Your task to perform on an android device: Open Yahoo.com Image 0: 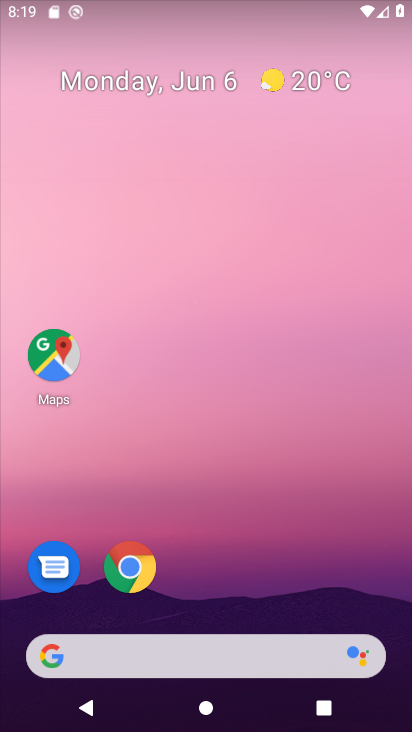
Step 0: click (122, 566)
Your task to perform on an android device: Open Yahoo.com Image 1: 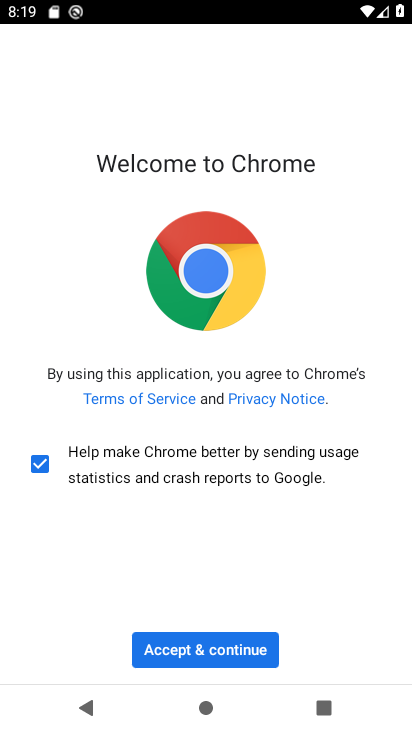
Step 1: click (234, 643)
Your task to perform on an android device: Open Yahoo.com Image 2: 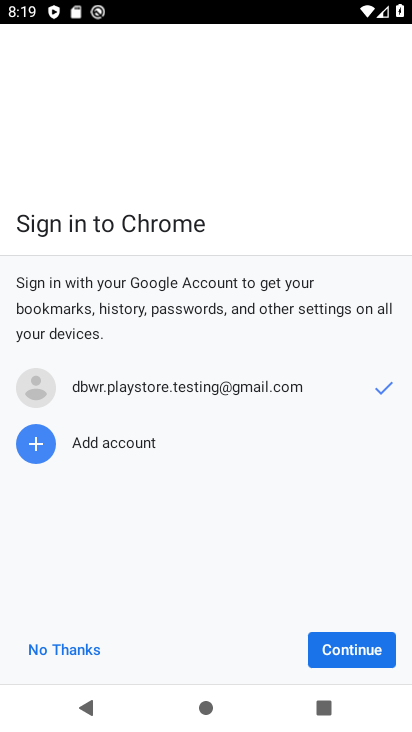
Step 2: click (340, 652)
Your task to perform on an android device: Open Yahoo.com Image 3: 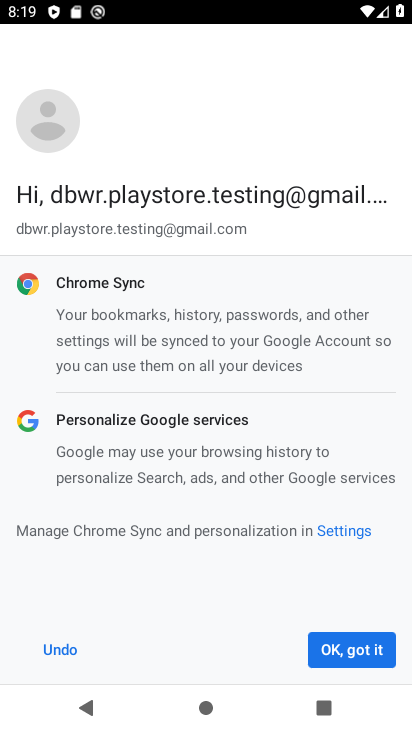
Step 3: click (340, 652)
Your task to perform on an android device: Open Yahoo.com Image 4: 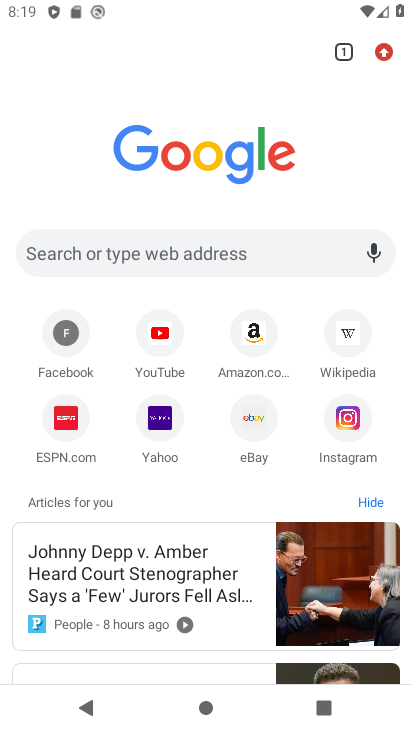
Step 4: click (158, 420)
Your task to perform on an android device: Open Yahoo.com Image 5: 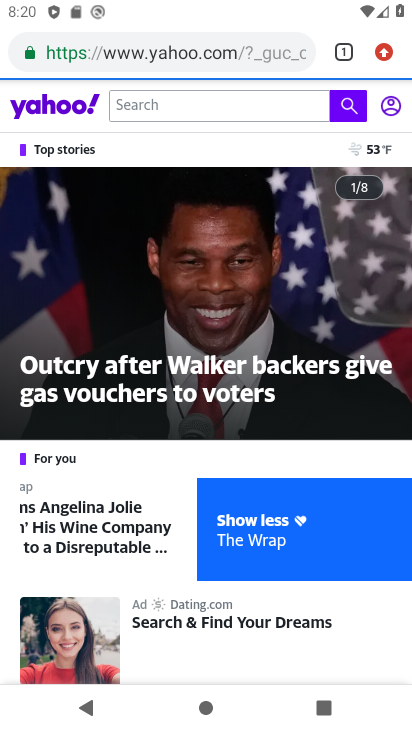
Step 5: task complete